Your task to perform on an android device: turn pop-ups on in chrome Image 0: 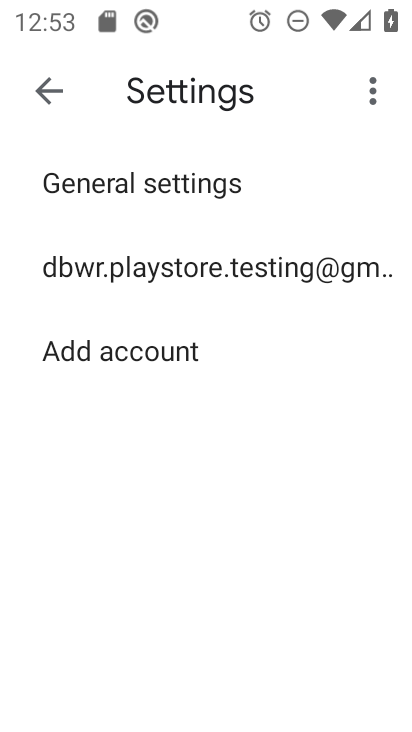
Step 0: press home button
Your task to perform on an android device: turn pop-ups on in chrome Image 1: 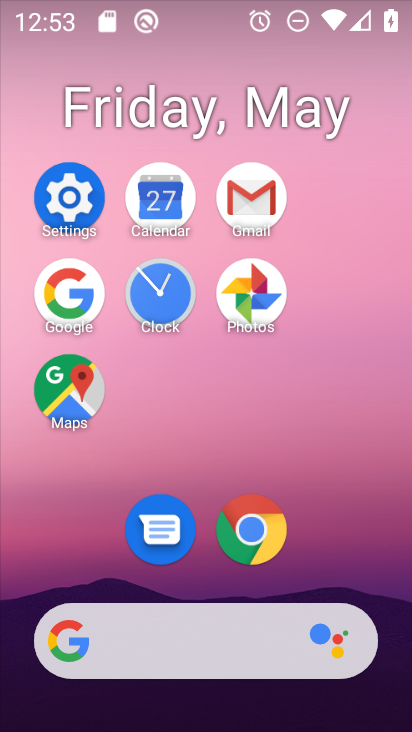
Step 1: click (249, 510)
Your task to perform on an android device: turn pop-ups on in chrome Image 2: 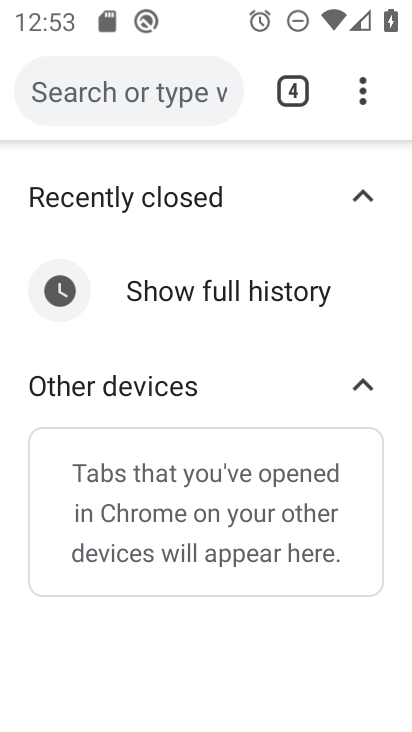
Step 2: click (362, 94)
Your task to perform on an android device: turn pop-ups on in chrome Image 3: 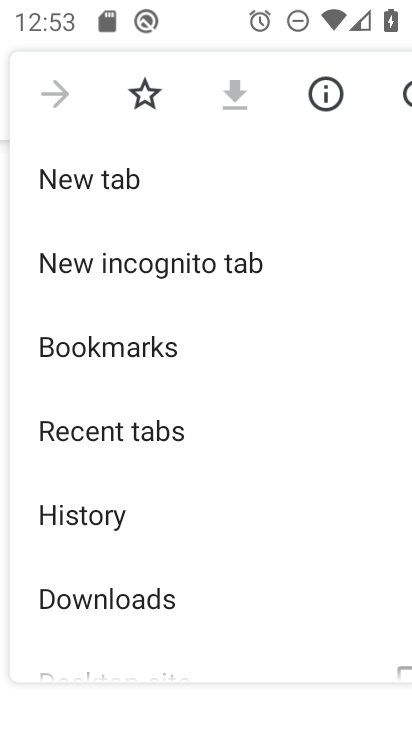
Step 3: drag from (244, 474) to (222, 52)
Your task to perform on an android device: turn pop-ups on in chrome Image 4: 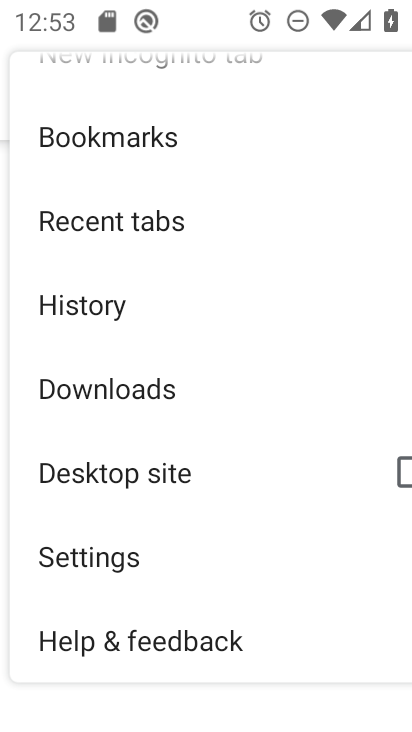
Step 4: click (97, 552)
Your task to perform on an android device: turn pop-ups on in chrome Image 5: 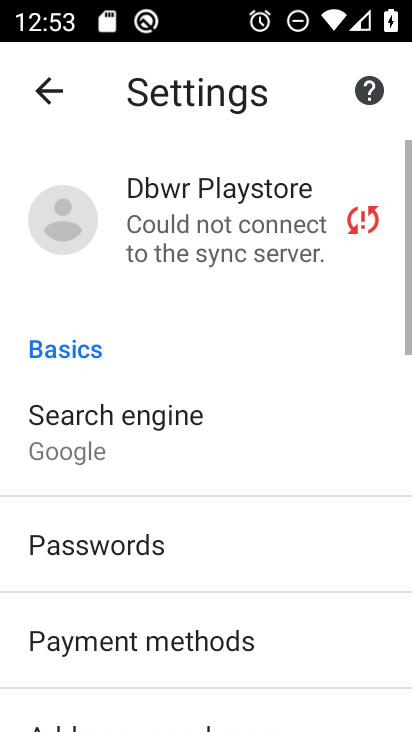
Step 5: drag from (196, 612) to (241, 284)
Your task to perform on an android device: turn pop-ups on in chrome Image 6: 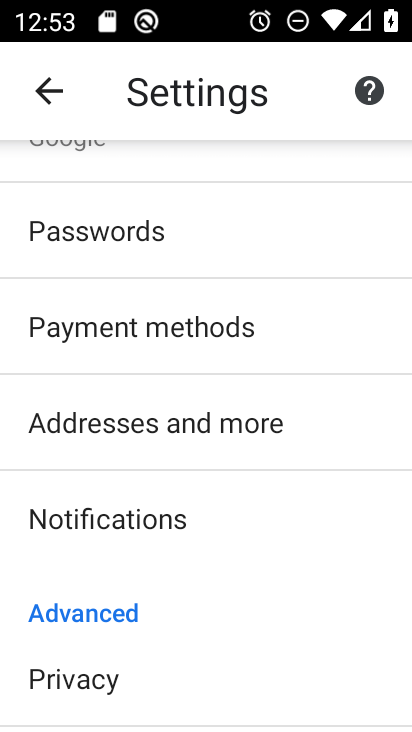
Step 6: drag from (209, 588) to (227, 296)
Your task to perform on an android device: turn pop-ups on in chrome Image 7: 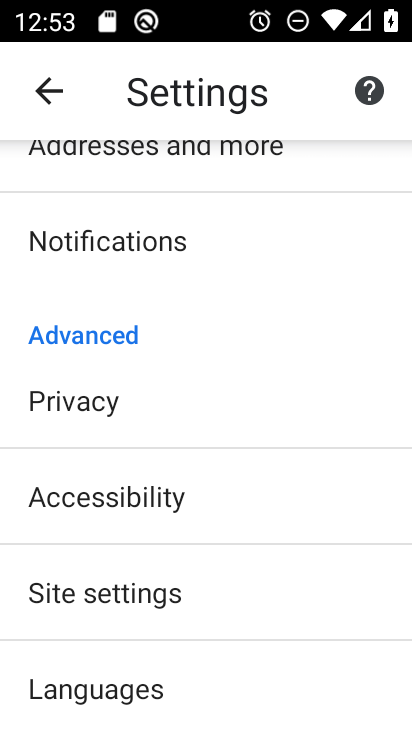
Step 7: click (147, 602)
Your task to perform on an android device: turn pop-ups on in chrome Image 8: 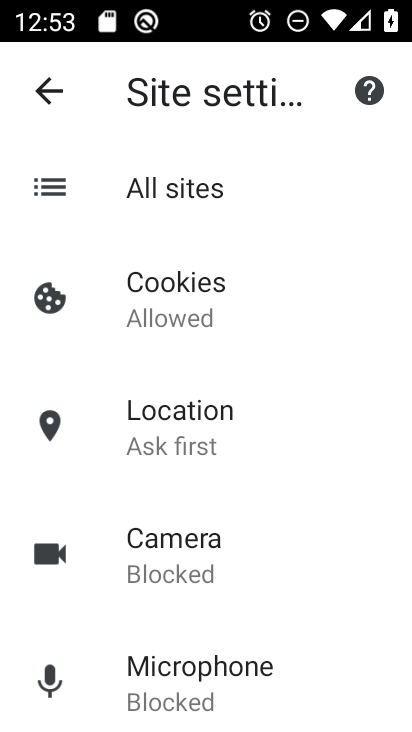
Step 8: drag from (283, 391) to (278, 259)
Your task to perform on an android device: turn pop-ups on in chrome Image 9: 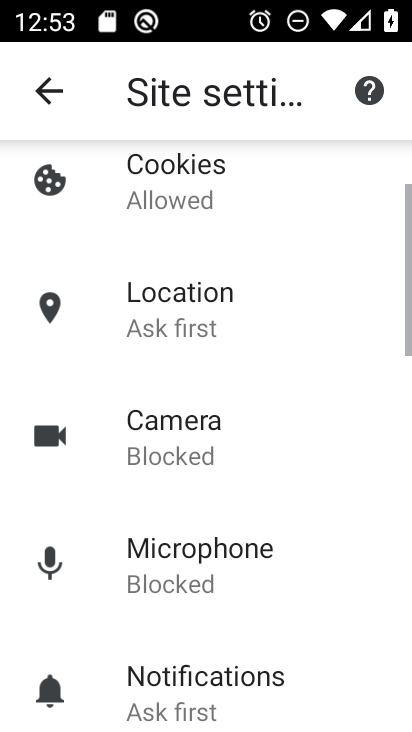
Step 9: drag from (282, 695) to (264, 244)
Your task to perform on an android device: turn pop-ups on in chrome Image 10: 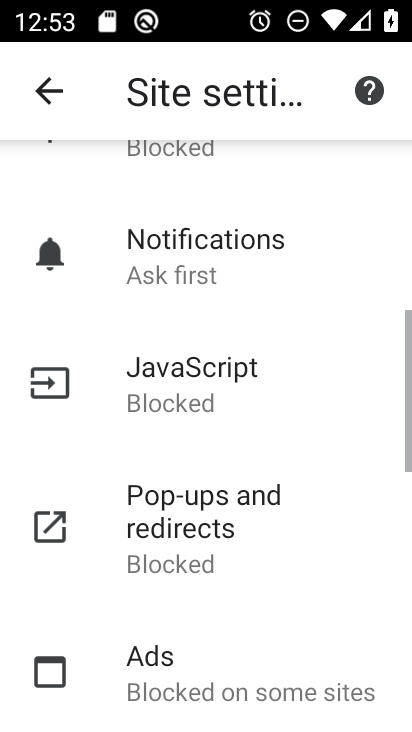
Step 10: click (230, 527)
Your task to perform on an android device: turn pop-ups on in chrome Image 11: 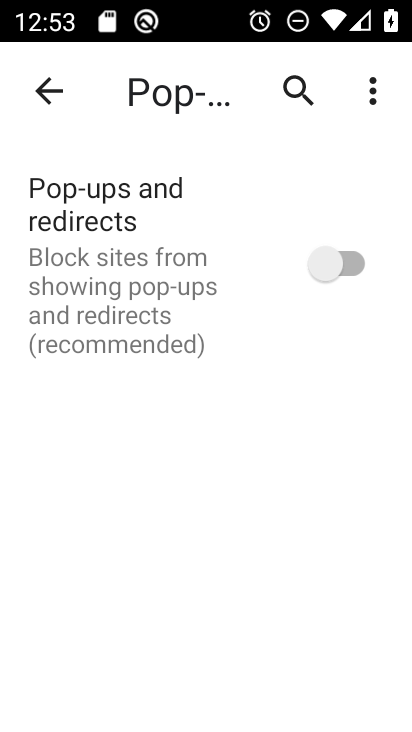
Step 11: click (345, 255)
Your task to perform on an android device: turn pop-ups on in chrome Image 12: 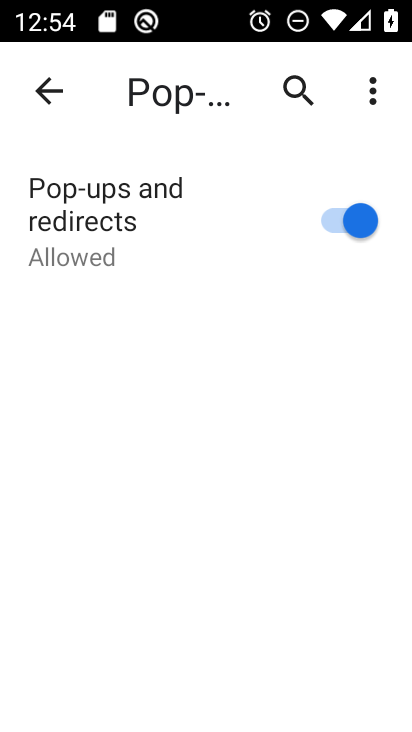
Step 12: task complete